Your task to perform on an android device: star an email in the gmail app Image 0: 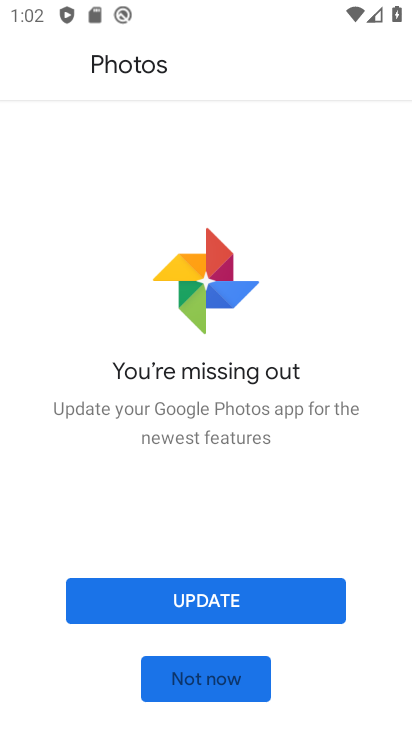
Step 0: press home button
Your task to perform on an android device: star an email in the gmail app Image 1: 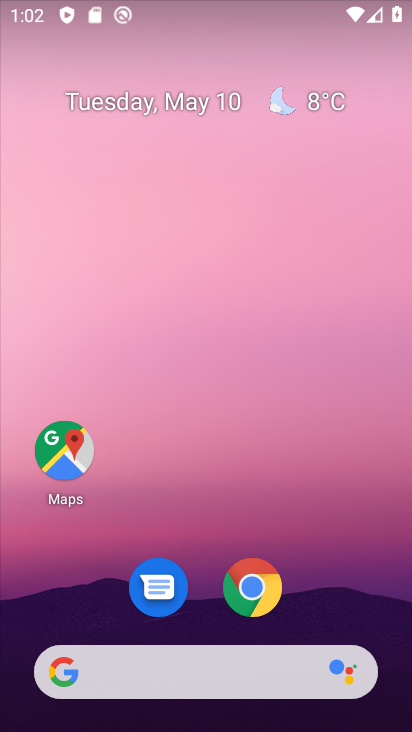
Step 1: drag from (302, 506) to (265, 36)
Your task to perform on an android device: star an email in the gmail app Image 2: 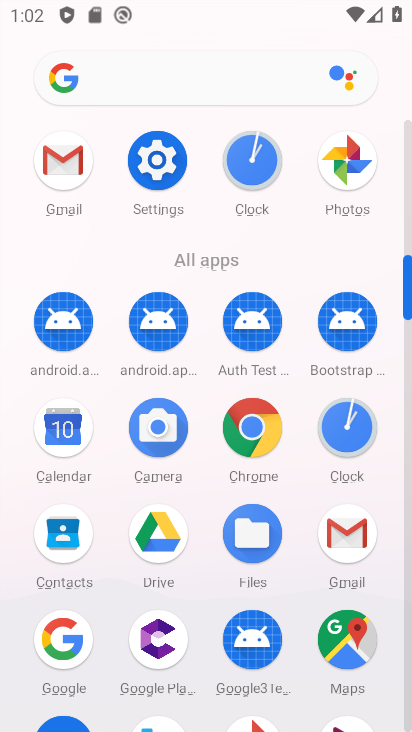
Step 2: click (339, 511)
Your task to perform on an android device: star an email in the gmail app Image 3: 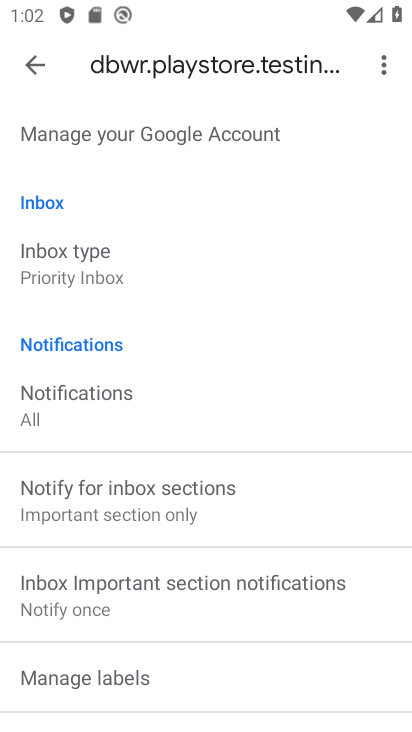
Step 3: click (33, 65)
Your task to perform on an android device: star an email in the gmail app Image 4: 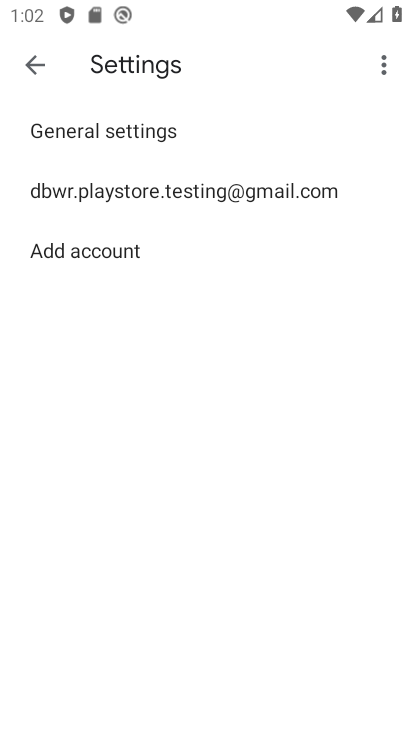
Step 4: click (37, 66)
Your task to perform on an android device: star an email in the gmail app Image 5: 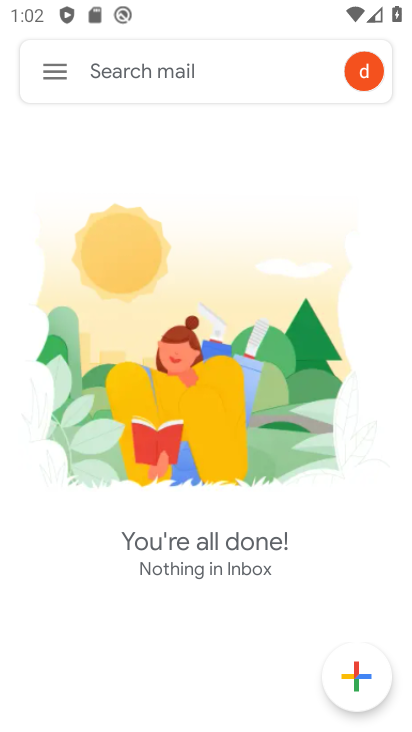
Step 5: click (60, 80)
Your task to perform on an android device: star an email in the gmail app Image 6: 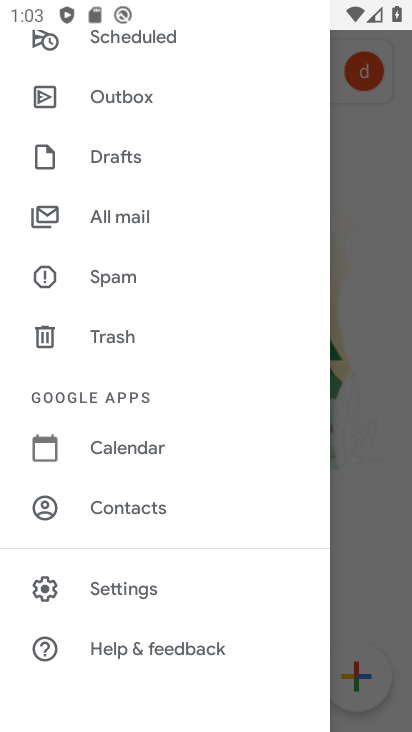
Step 6: click (127, 221)
Your task to perform on an android device: star an email in the gmail app Image 7: 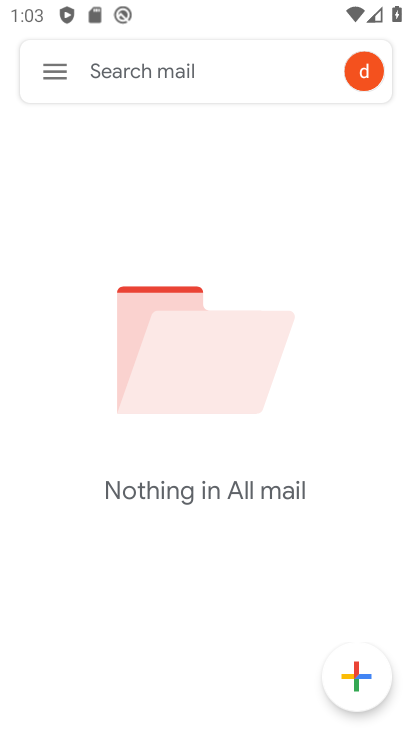
Step 7: task complete